Your task to perform on an android device: change the clock display to digital Image 0: 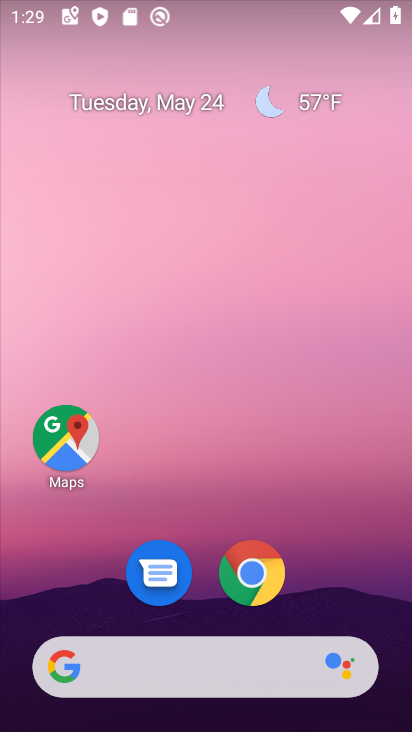
Step 0: drag from (335, 568) to (342, 308)
Your task to perform on an android device: change the clock display to digital Image 1: 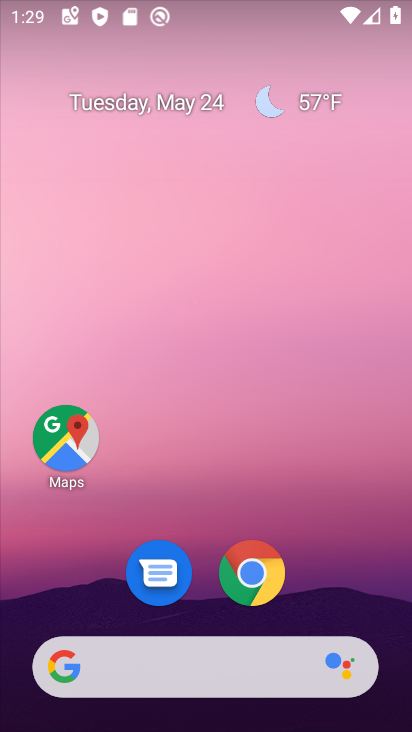
Step 1: drag from (354, 622) to (377, 331)
Your task to perform on an android device: change the clock display to digital Image 2: 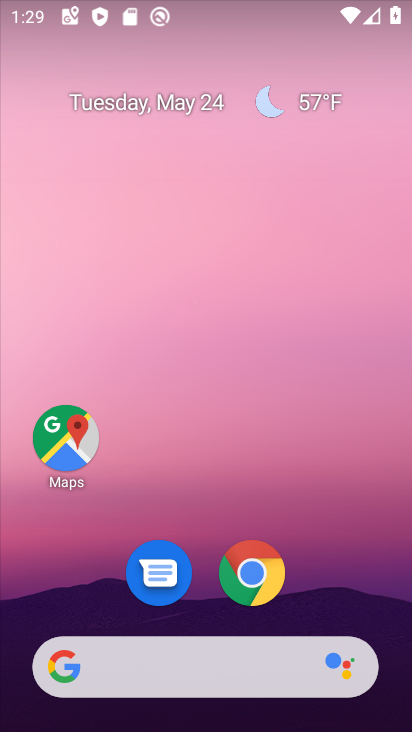
Step 2: drag from (392, 634) to (363, 334)
Your task to perform on an android device: change the clock display to digital Image 3: 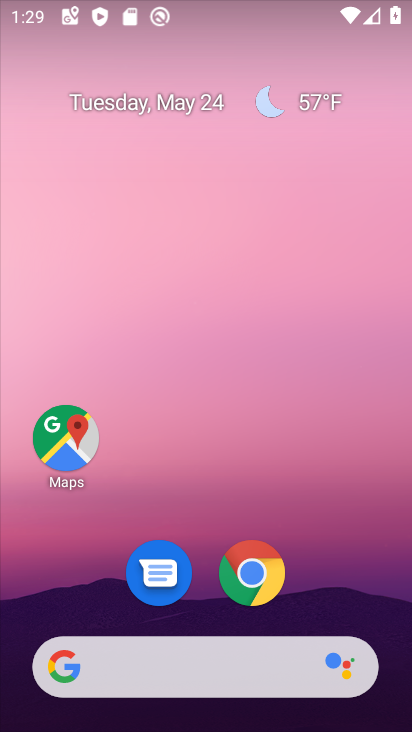
Step 3: drag from (378, 603) to (365, 191)
Your task to perform on an android device: change the clock display to digital Image 4: 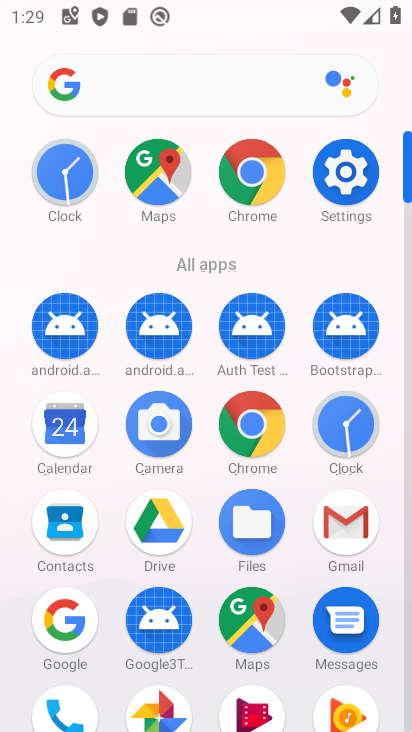
Step 4: click (357, 427)
Your task to perform on an android device: change the clock display to digital Image 5: 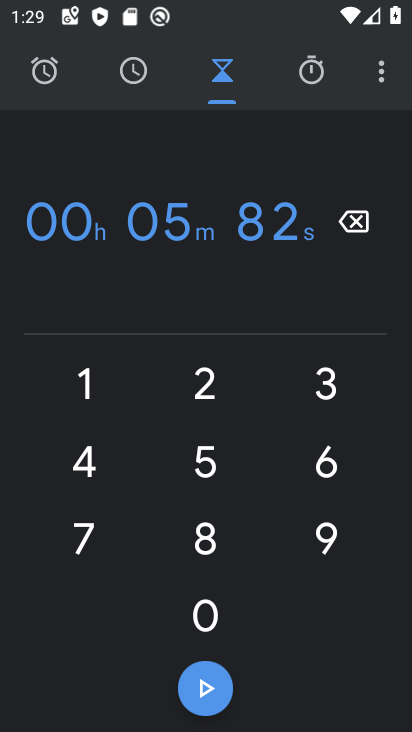
Step 5: click (385, 58)
Your task to perform on an android device: change the clock display to digital Image 6: 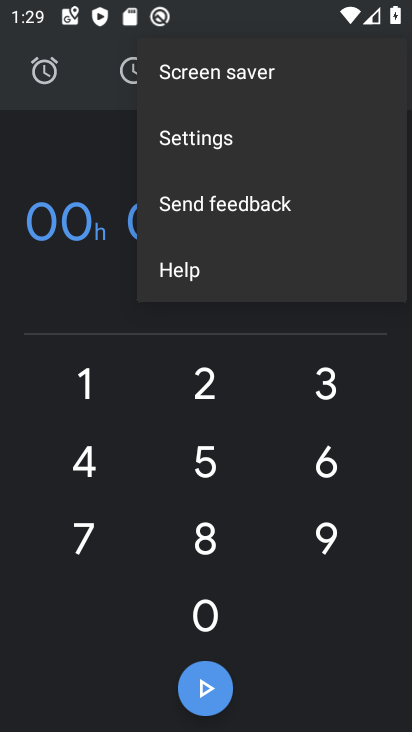
Step 6: click (265, 155)
Your task to perform on an android device: change the clock display to digital Image 7: 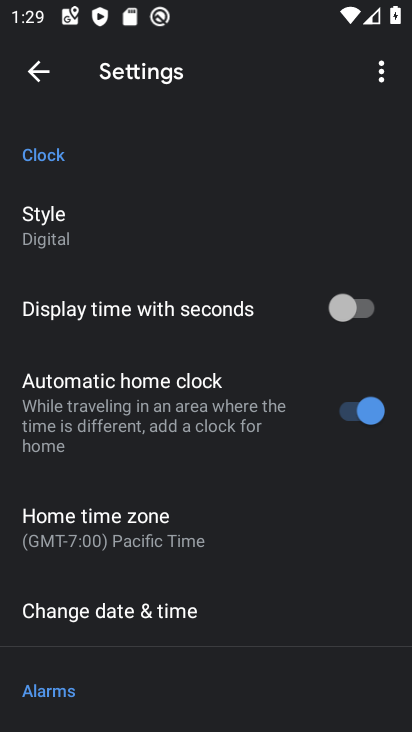
Step 7: click (265, 155)
Your task to perform on an android device: change the clock display to digital Image 8: 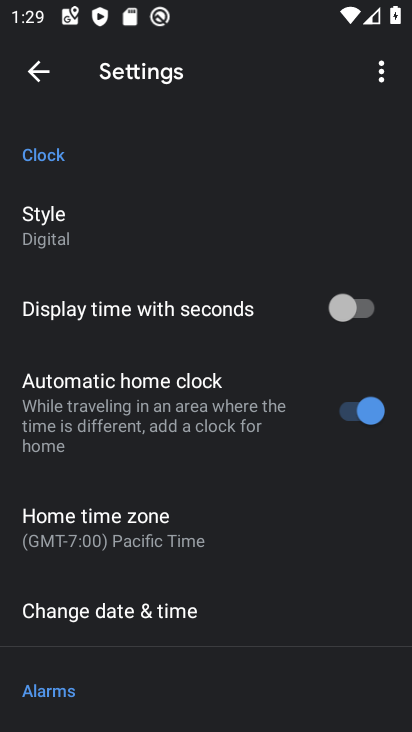
Step 8: click (202, 221)
Your task to perform on an android device: change the clock display to digital Image 9: 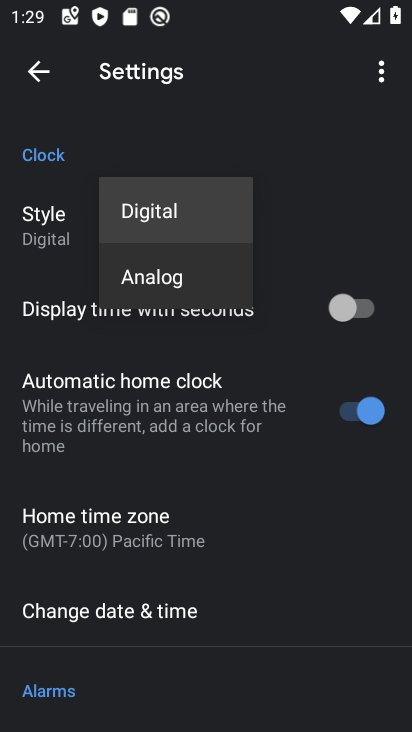
Step 9: task complete